Your task to perform on an android device: toggle priority inbox in the gmail app Image 0: 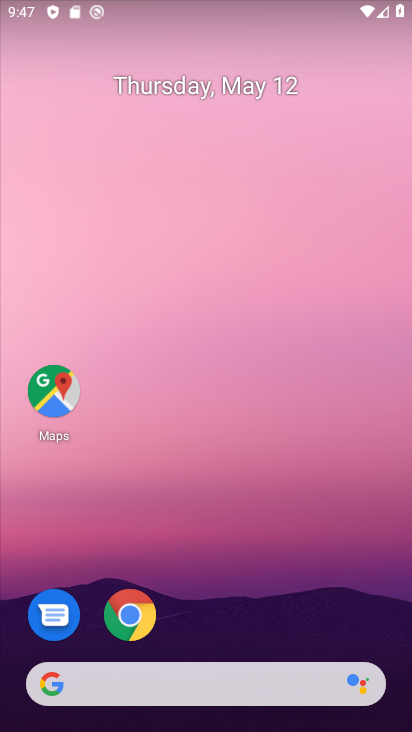
Step 0: drag from (214, 726) to (214, 49)
Your task to perform on an android device: toggle priority inbox in the gmail app Image 1: 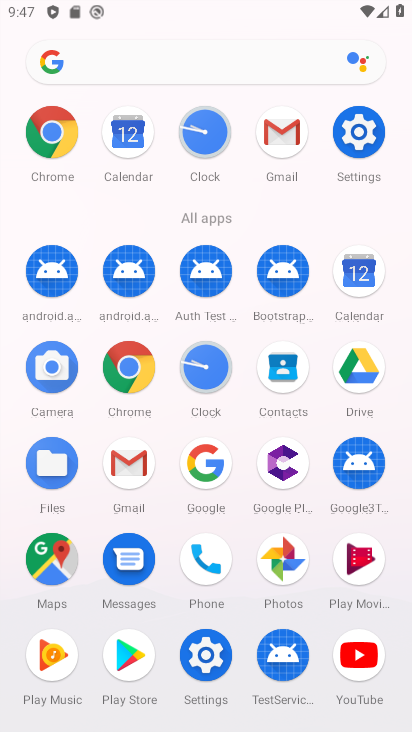
Step 1: click (137, 465)
Your task to perform on an android device: toggle priority inbox in the gmail app Image 2: 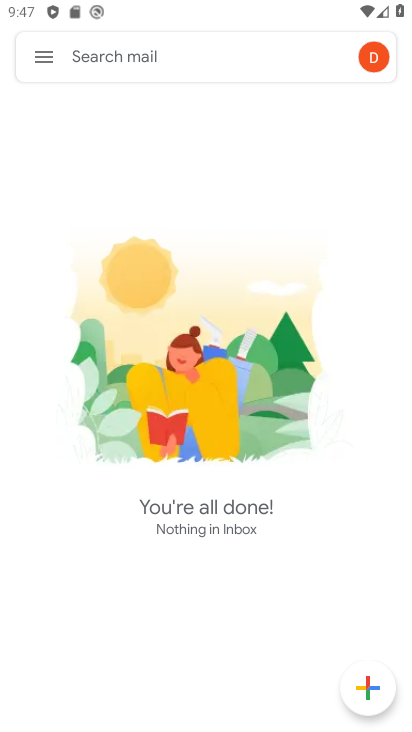
Step 2: click (39, 48)
Your task to perform on an android device: toggle priority inbox in the gmail app Image 3: 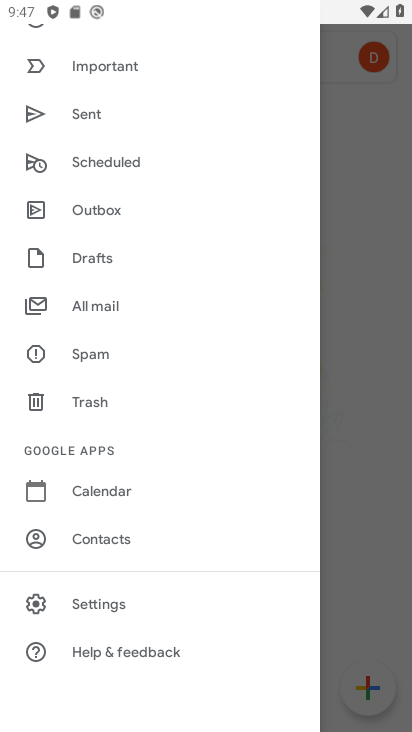
Step 3: click (110, 603)
Your task to perform on an android device: toggle priority inbox in the gmail app Image 4: 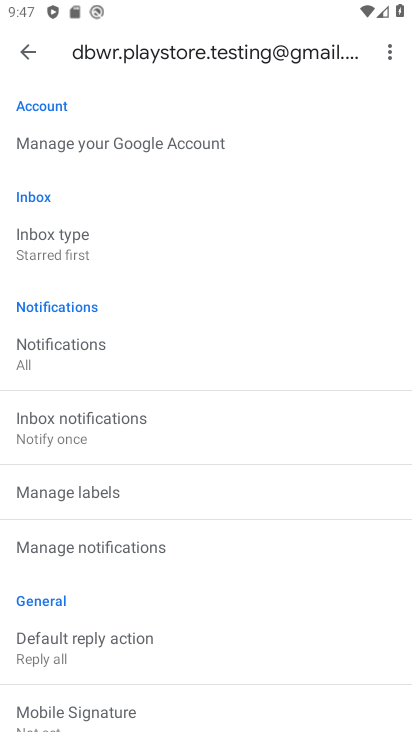
Step 4: click (42, 239)
Your task to perform on an android device: toggle priority inbox in the gmail app Image 5: 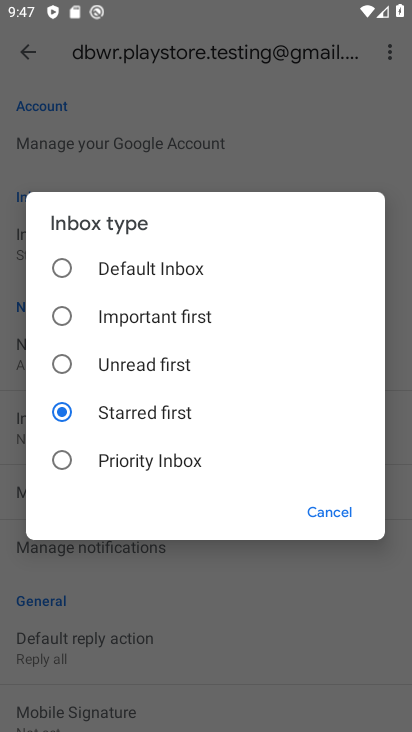
Step 5: click (58, 461)
Your task to perform on an android device: toggle priority inbox in the gmail app Image 6: 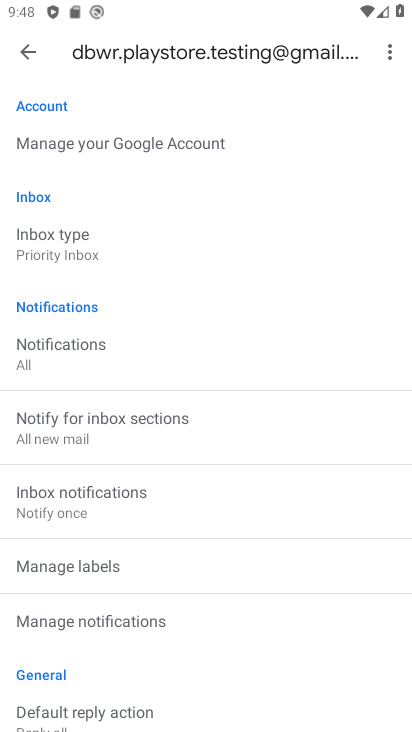
Step 6: task complete